Your task to perform on an android device: Open Google Chrome and open the bookmarks view Image 0: 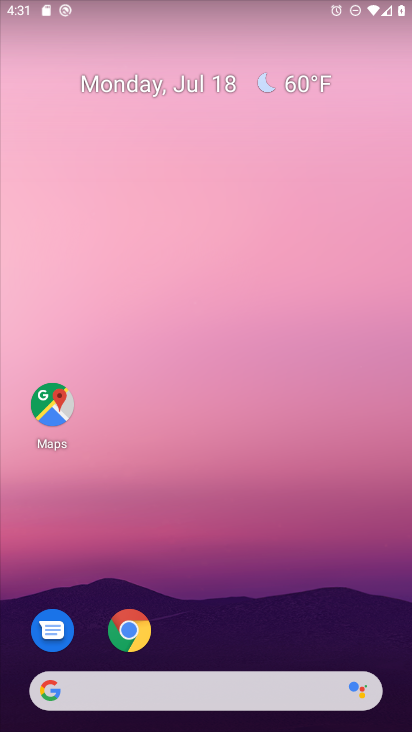
Step 0: click (123, 635)
Your task to perform on an android device: Open Google Chrome and open the bookmarks view Image 1: 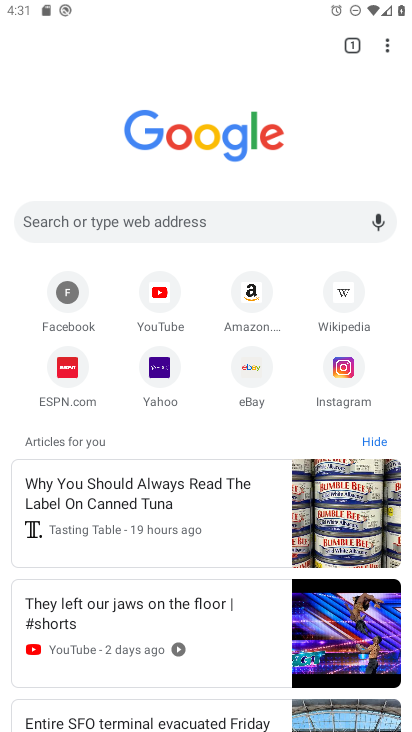
Step 1: click (382, 41)
Your task to perform on an android device: Open Google Chrome and open the bookmarks view Image 2: 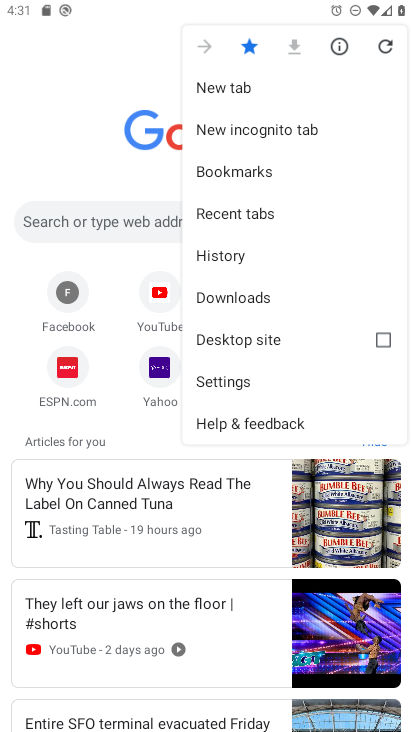
Step 2: click (240, 168)
Your task to perform on an android device: Open Google Chrome and open the bookmarks view Image 3: 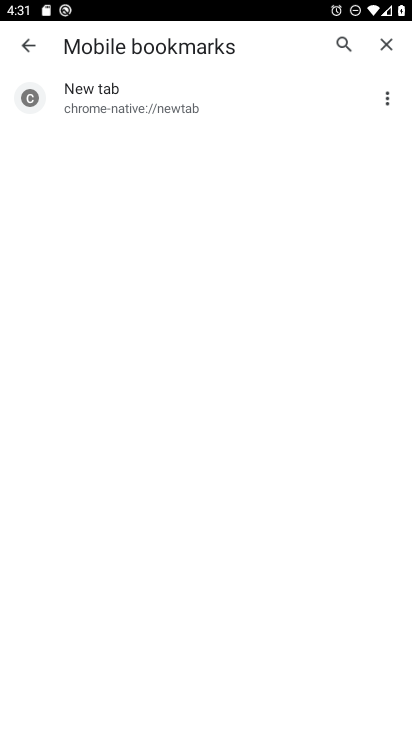
Step 3: click (391, 92)
Your task to perform on an android device: Open Google Chrome and open the bookmarks view Image 4: 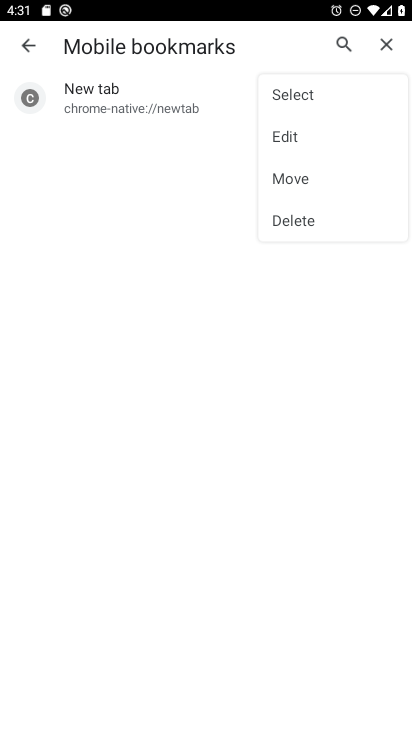
Step 4: click (280, 131)
Your task to perform on an android device: Open Google Chrome and open the bookmarks view Image 5: 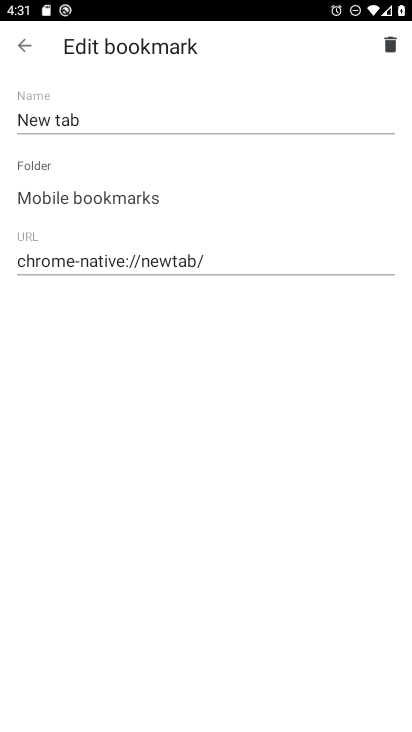
Step 5: task complete